Your task to perform on an android device: Search for sushi restaurants on Maps Image 0: 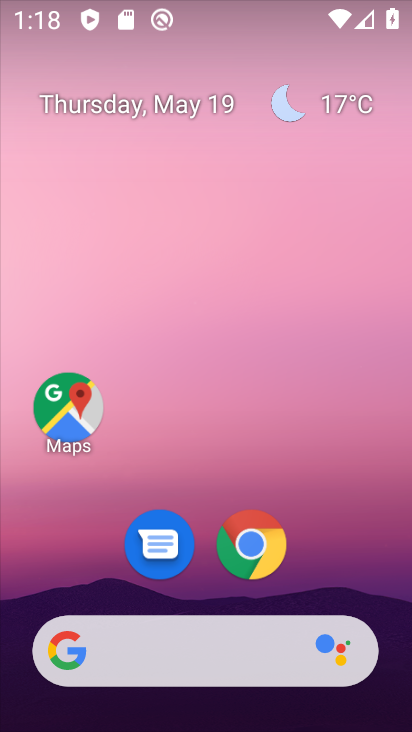
Step 0: drag from (201, 712) to (202, 344)
Your task to perform on an android device: Search for sushi restaurants on Maps Image 1: 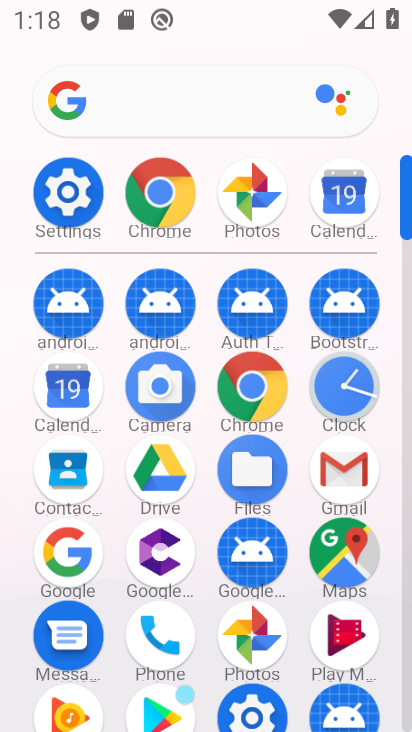
Step 1: click (351, 550)
Your task to perform on an android device: Search for sushi restaurants on Maps Image 2: 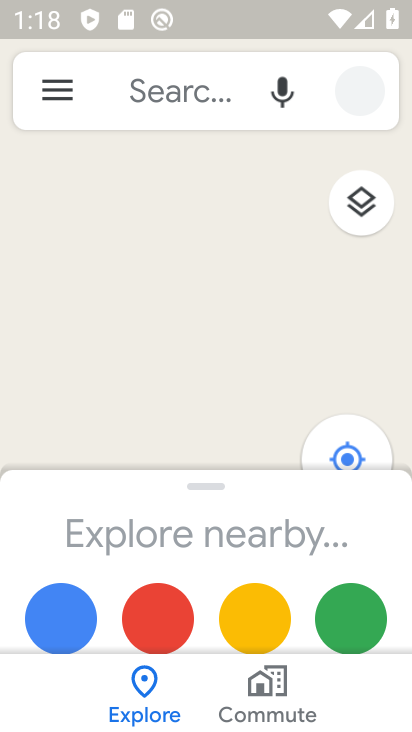
Step 2: click (188, 93)
Your task to perform on an android device: Search for sushi restaurants on Maps Image 3: 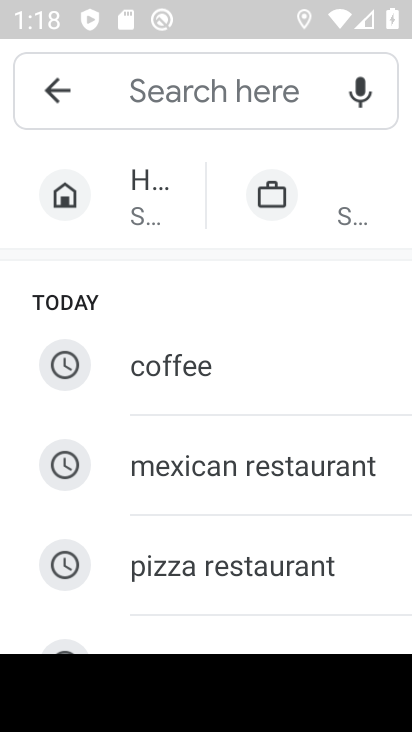
Step 3: type "sushi restaurants"
Your task to perform on an android device: Search for sushi restaurants on Maps Image 4: 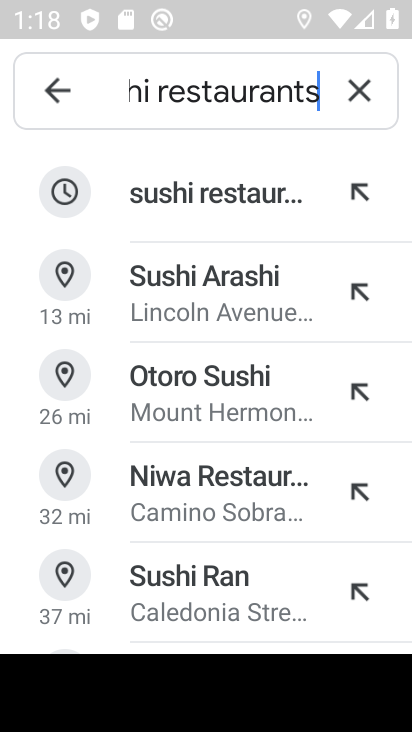
Step 4: click (188, 187)
Your task to perform on an android device: Search for sushi restaurants on Maps Image 5: 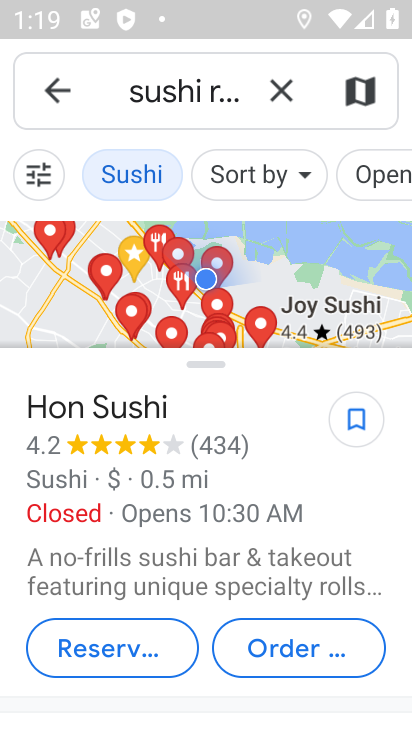
Step 5: task complete